Your task to perform on an android device: turn notification dots on Image 0: 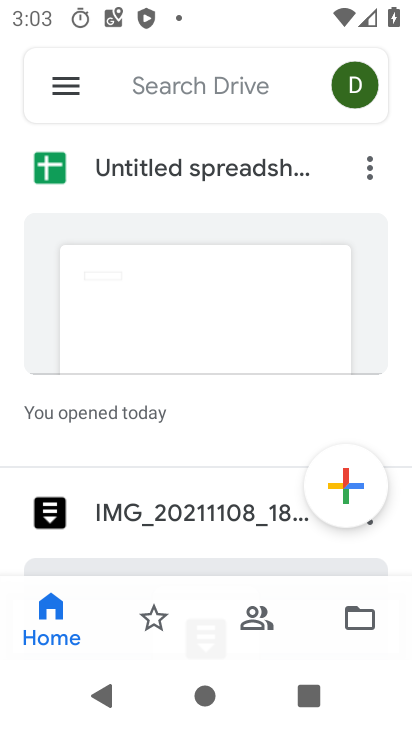
Step 0: press home button
Your task to perform on an android device: turn notification dots on Image 1: 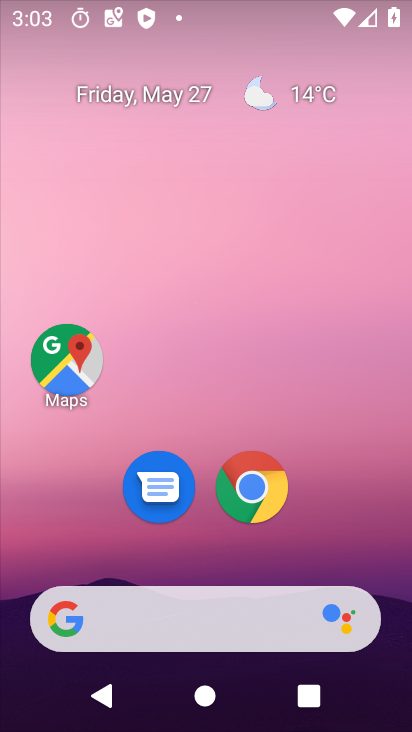
Step 1: drag from (323, 585) to (341, 207)
Your task to perform on an android device: turn notification dots on Image 2: 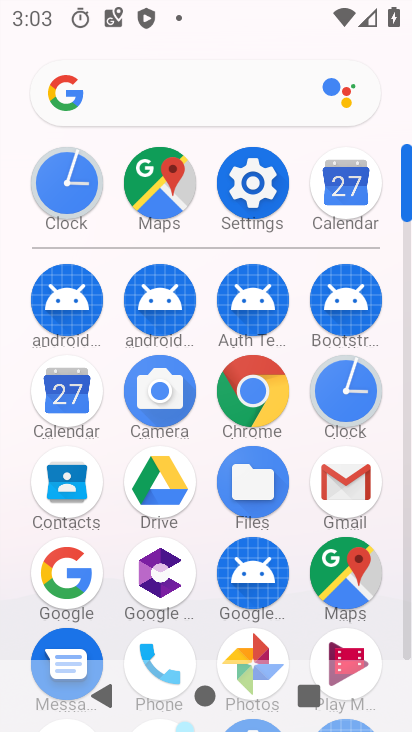
Step 2: click (268, 189)
Your task to perform on an android device: turn notification dots on Image 3: 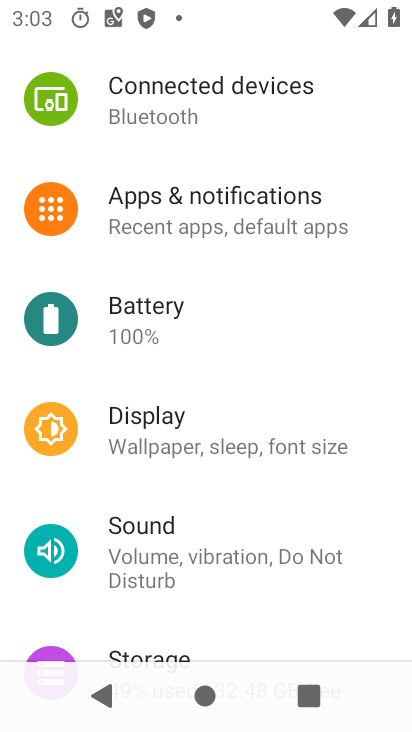
Step 3: click (232, 221)
Your task to perform on an android device: turn notification dots on Image 4: 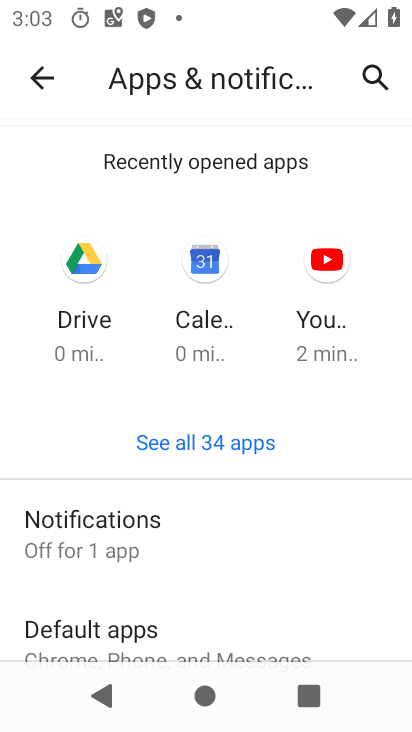
Step 4: drag from (250, 557) to (297, 173)
Your task to perform on an android device: turn notification dots on Image 5: 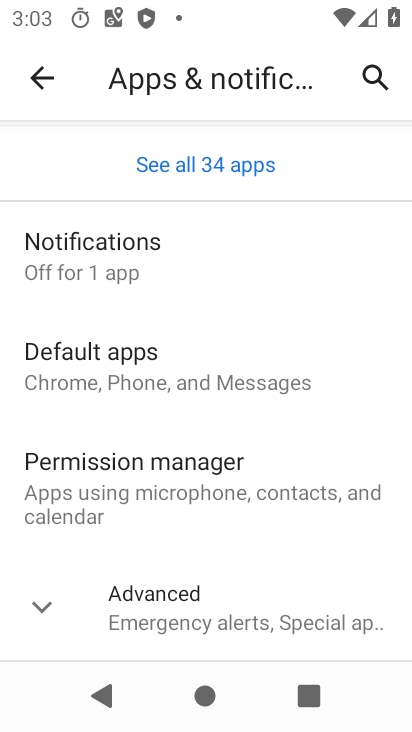
Step 5: click (205, 600)
Your task to perform on an android device: turn notification dots on Image 6: 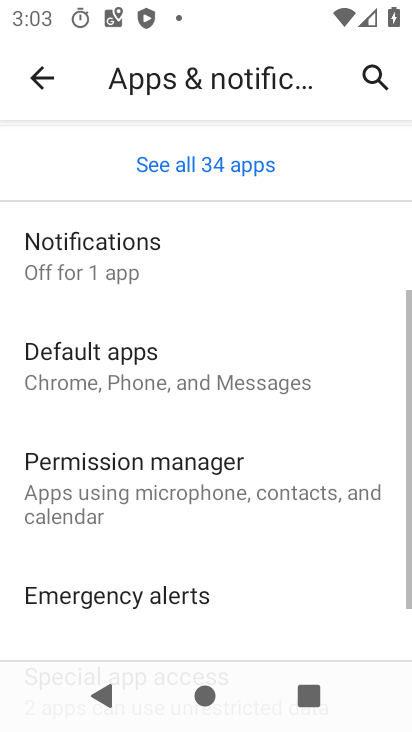
Step 6: drag from (246, 566) to (303, 73)
Your task to perform on an android device: turn notification dots on Image 7: 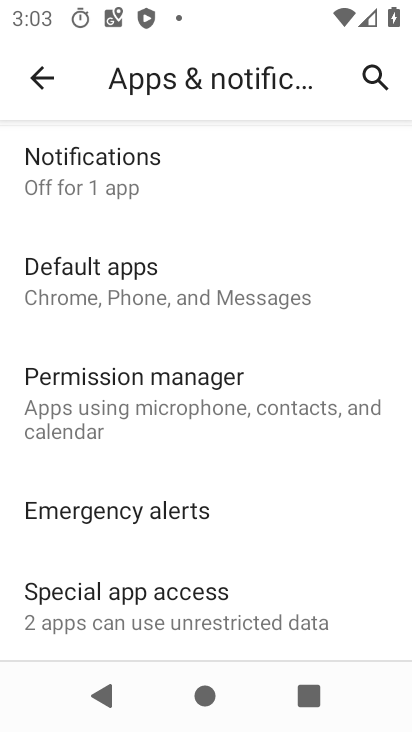
Step 7: drag from (269, 516) to (348, 126)
Your task to perform on an android device: turn notification dots on Image 8: 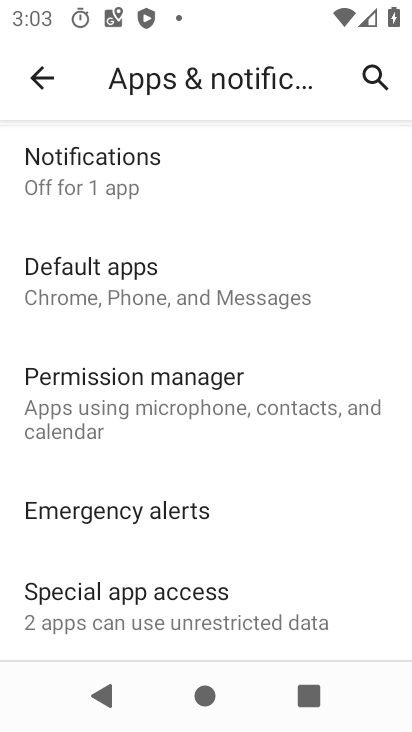
Step 8: click (160, 173)
Your task to perform on an android device: turn notification dots on Image 9: 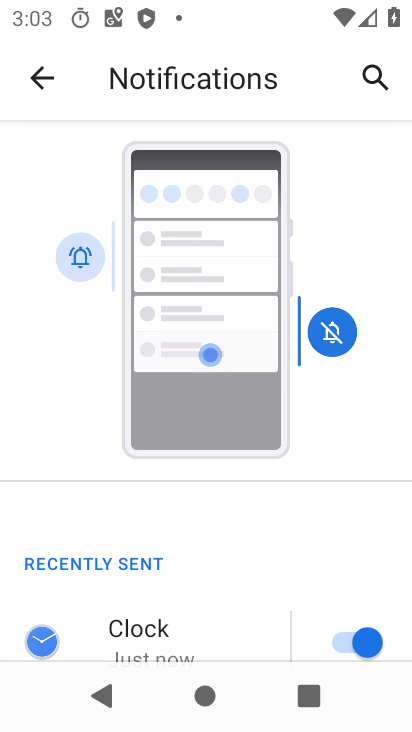
Step 9: drag from (246, 545) to (274, 93)
Your task to perform on an android device: turn notification dots on Image 10: 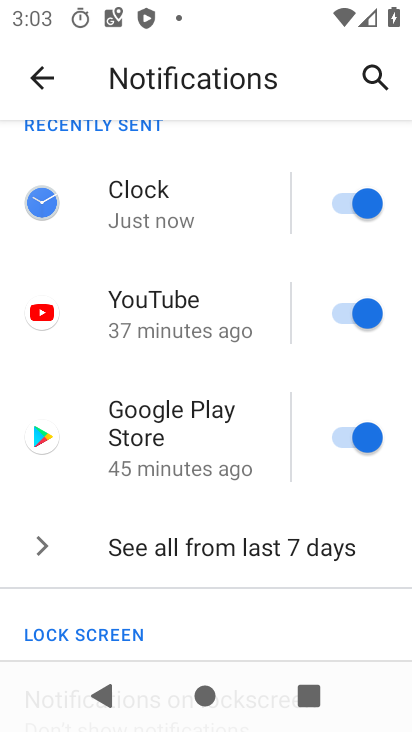
Step 10: drag from (238, 552) to (306, 76)
Your task to perform on an android device: turn notification dots on Image 11: 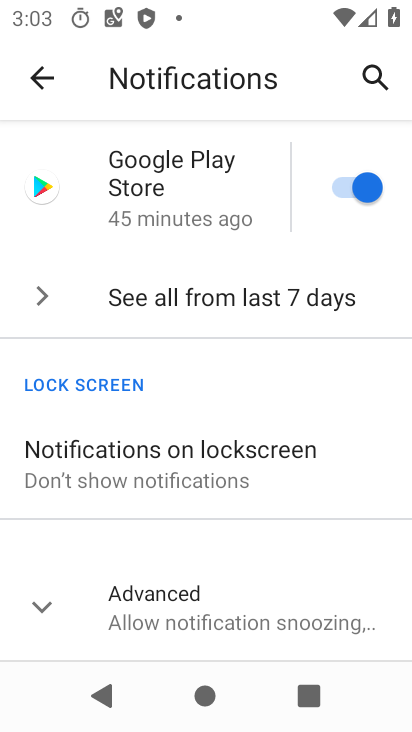
Step 11: click (216, 612)
Your task to perform on an android device: turn notification dots on Image 12: 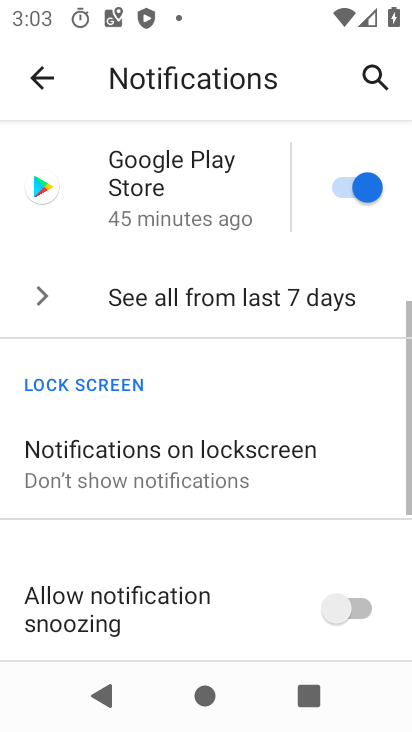
Step 12: task complete